Your task to perform on an android device: see tabs open on other devices in the chrome app Image 0: 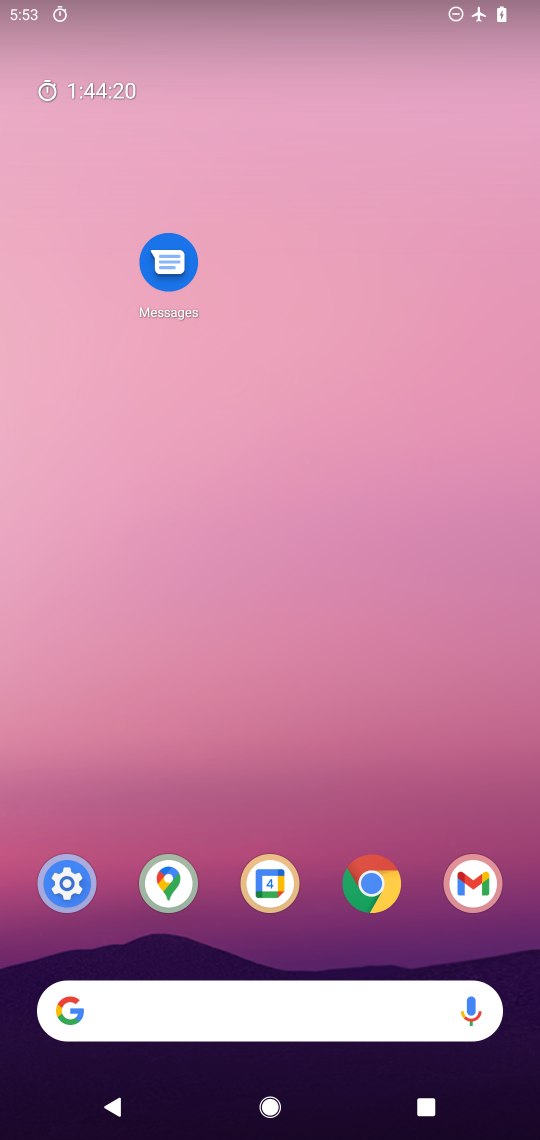
Step 0: click (366, 885)
Your task to perform on an android device: see tabs open on other devices in the chrome app Image 1: 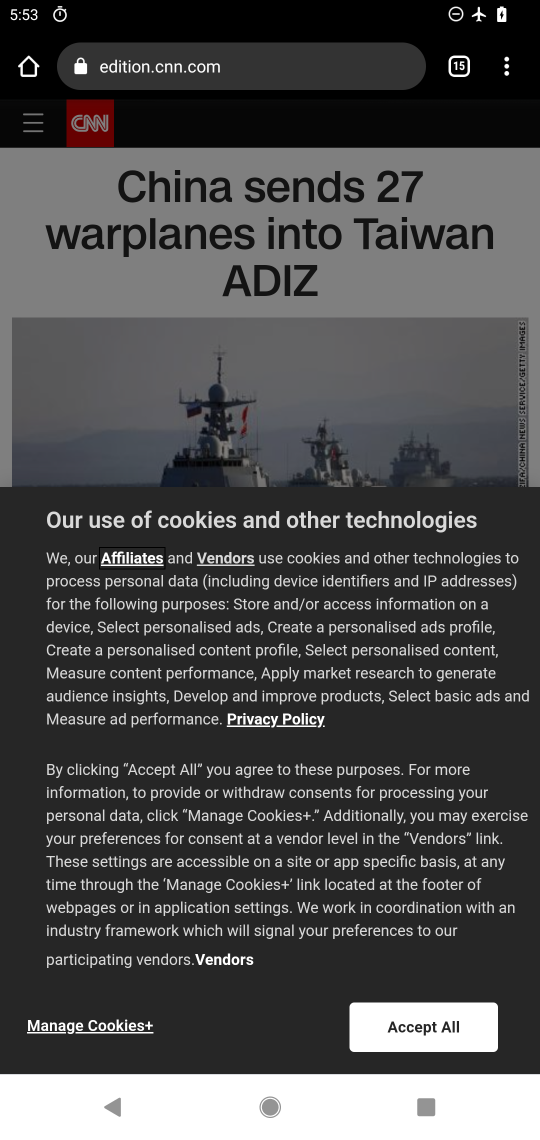
Step 1: click (506, 76)
Your task to perform on an android device: see tabs open on other devices in the chrome app Image 2: 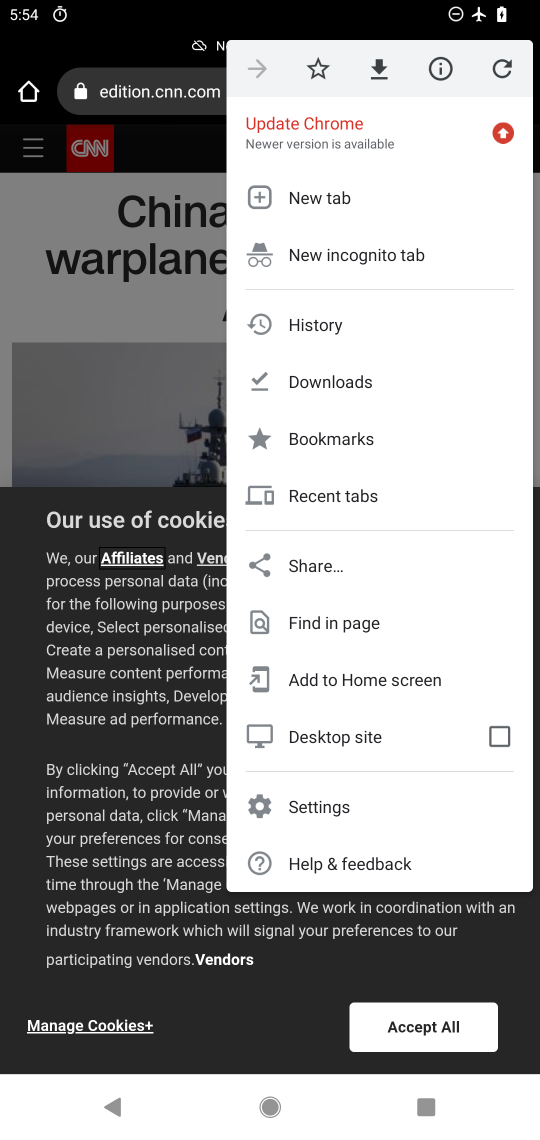
Step 2: click (343, 490)
Your task to perform on an android device: see tabs open on other devices in the chrome app Image 3: 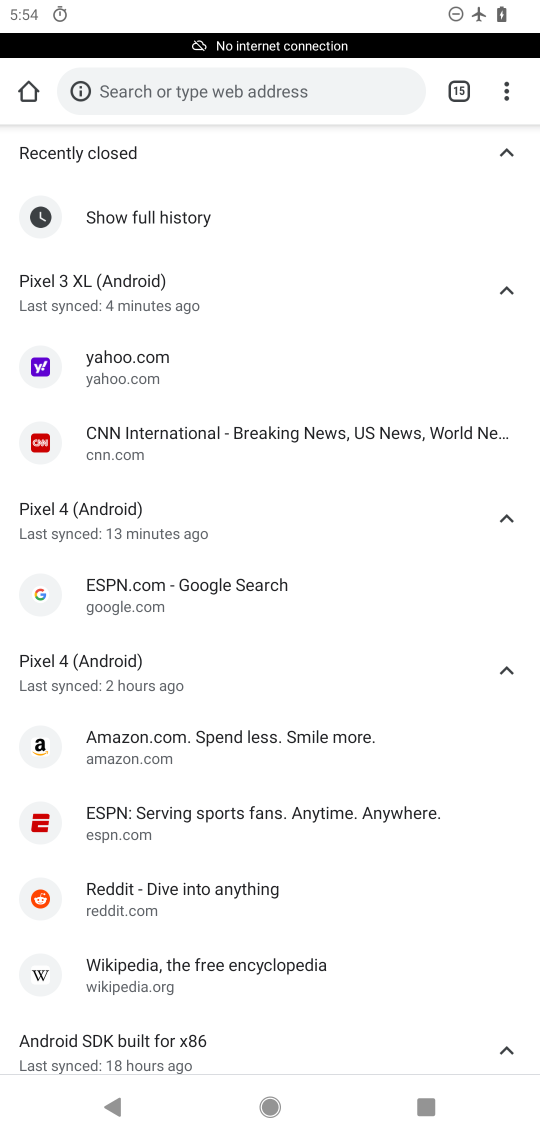
Step 3: task complete